Your task to perform on an android device: delete a single message in the gmail app Image 0: 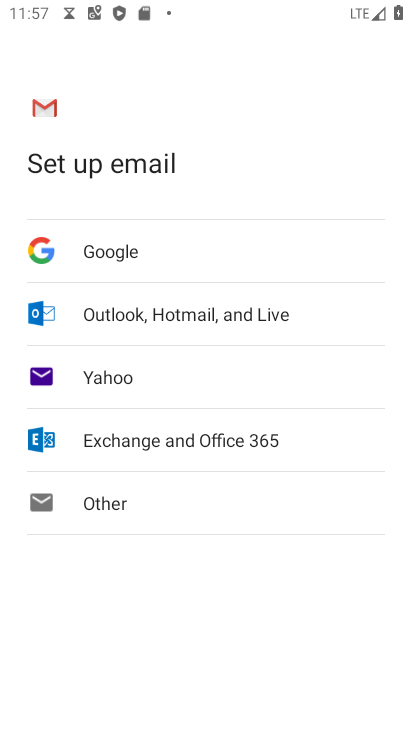
Step 0: press home button
Your task to perform on an android device: delete a single message in the gmail app Image 1: 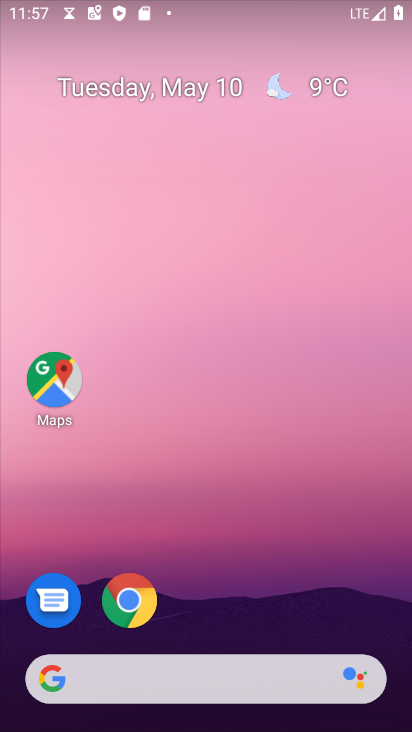
Step 1: drag from (236, 553) to (179, 59)
Your task to perform on an android device: delete a single message in the gmail app Image 2: 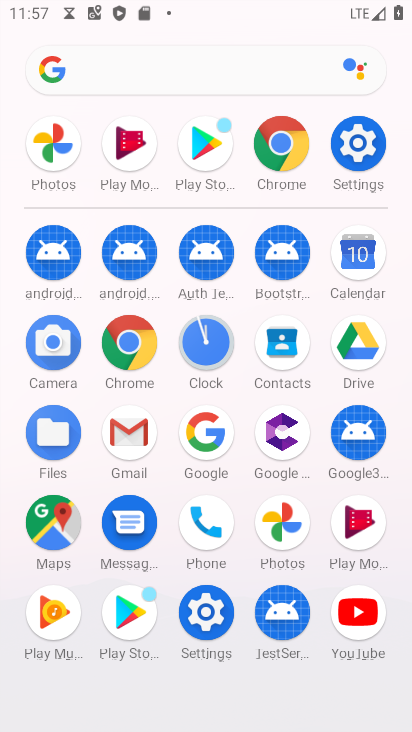
Step 2: click (117, 433)
Your task to perform on an android device: delete a single message in the gmail app Image 3: 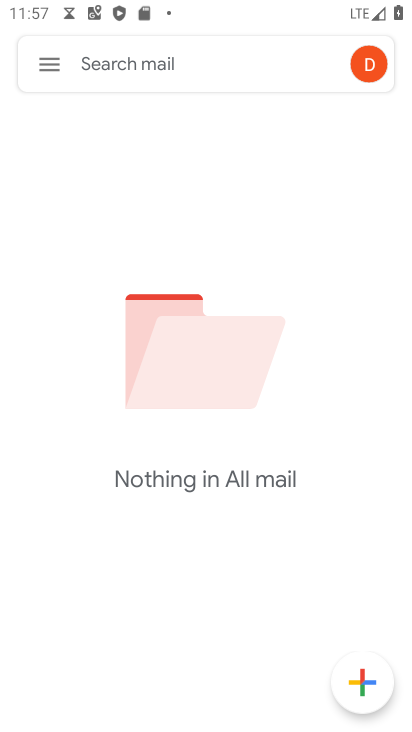
Step 3: click (42, 57)
Your task to perform on an android device: delete a single message in the gmail app Image 4: 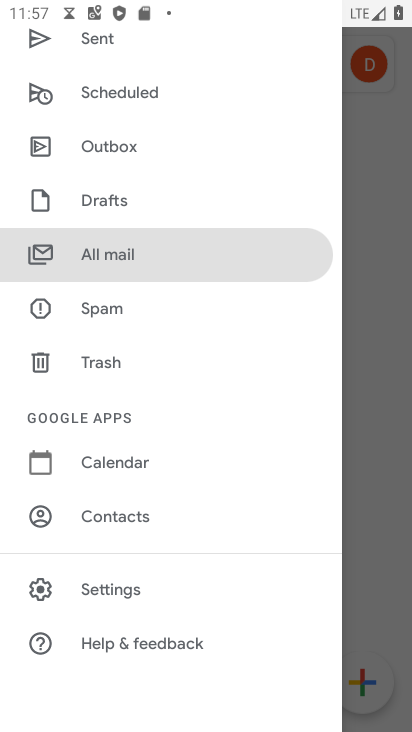
Step 4: click (169, 259)
Your task to perform on an android device: delete a single message in the gmail app Image 5: 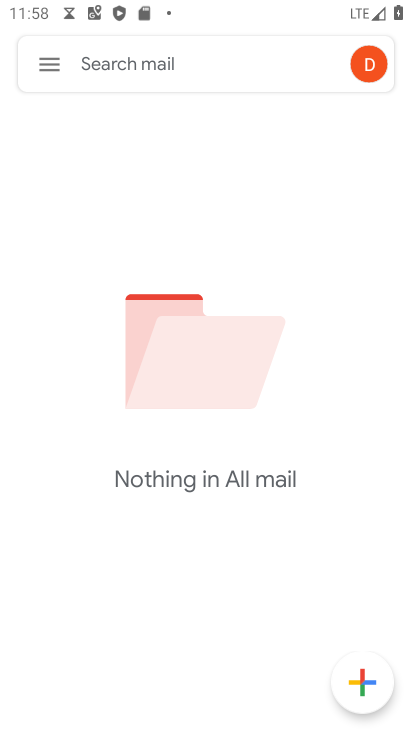
Step 5: task complete